Your task to perform on an android device: Turn on the flashlight Image 0: 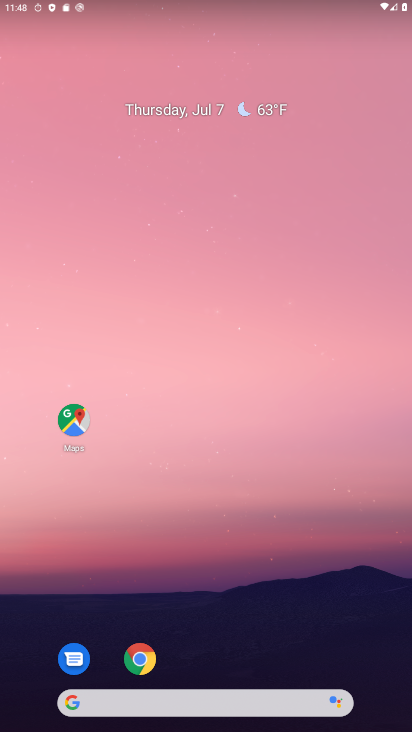
Step 0: drag from (278, 642) to (410, 80)
Your task to perform on an android device: Turn on the flashlight Image 1: 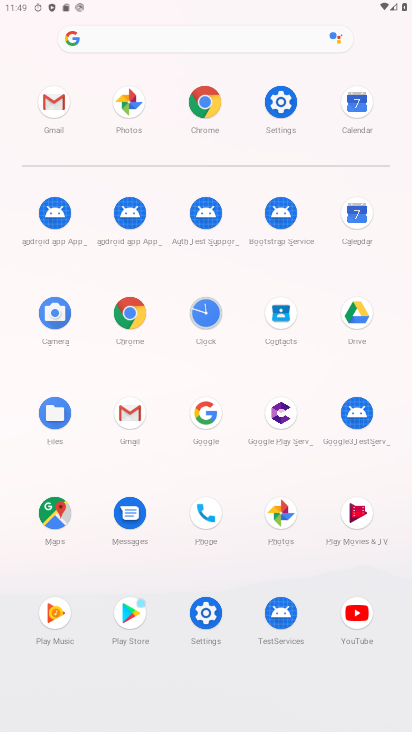
Step 1: click (207, 625)
Your task to perform on an android device: Turn on the flashlight Image 2: 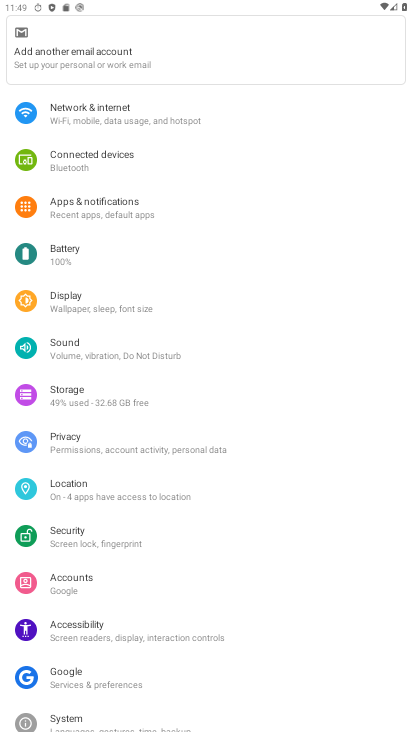
Step 2: drag from (186, 156) to (195, 520)
Your task to perform on an android device: Turn on the flashlight Image 3: 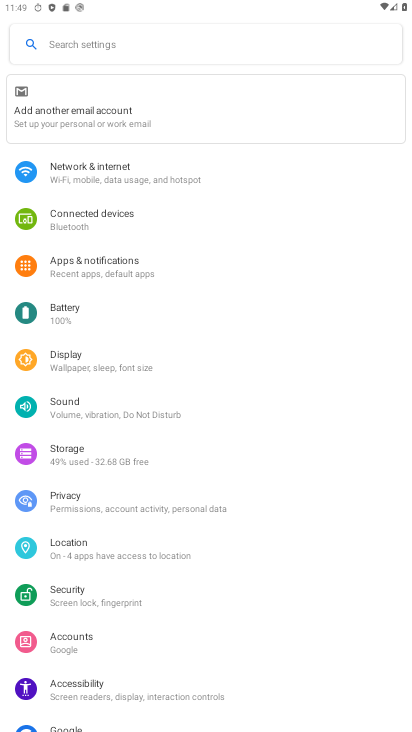
Step 3: click (187, 43)
Your task to perform on an android device: Turn on the flashlight Image 4: 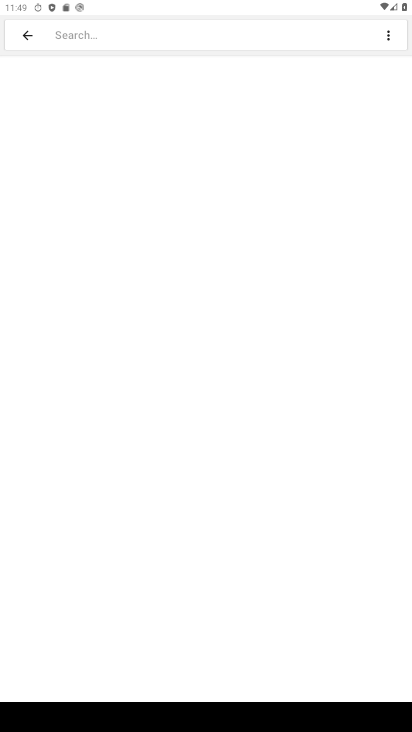
Step 4: type "flashlight"
Your task to perform on an android device: Turn on the flashlight Image 5: 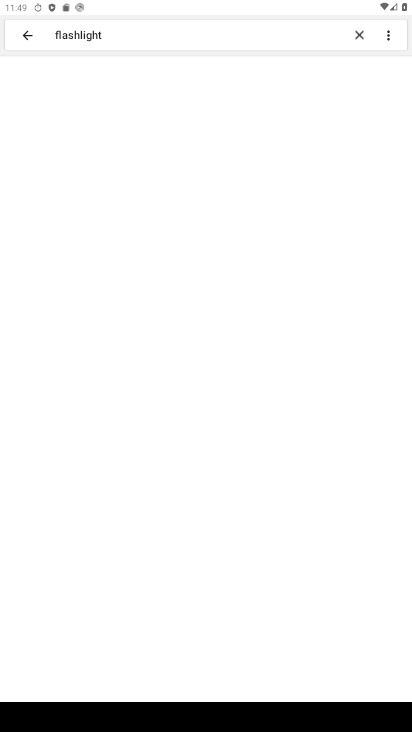
Step 5: click (124, 92)
Your task to perform on an android device: Turn on the flashlight Image 6: 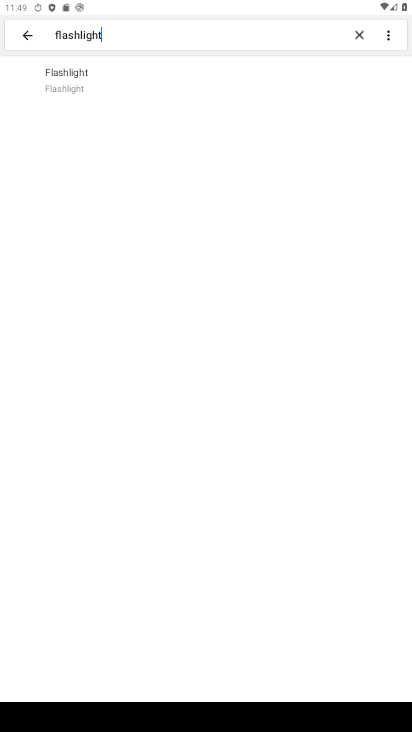
Step 6: click (79, 85)
Your task to perform on an android device: Turn on the flashlight Image 7: 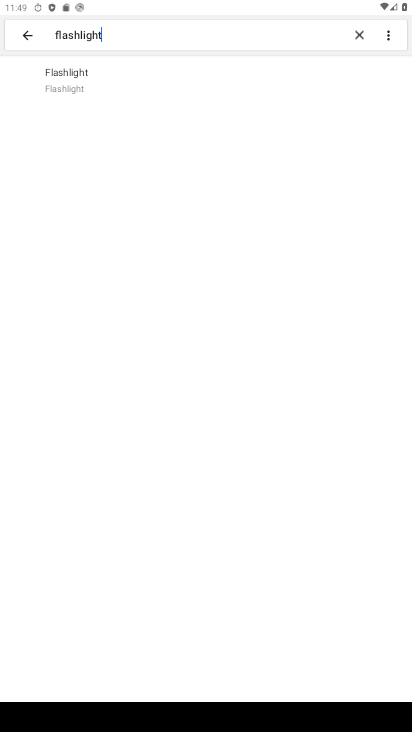
Step 7: click (78, 86)
Your task to perform on an android device: Turn on the flashlight Image 8: 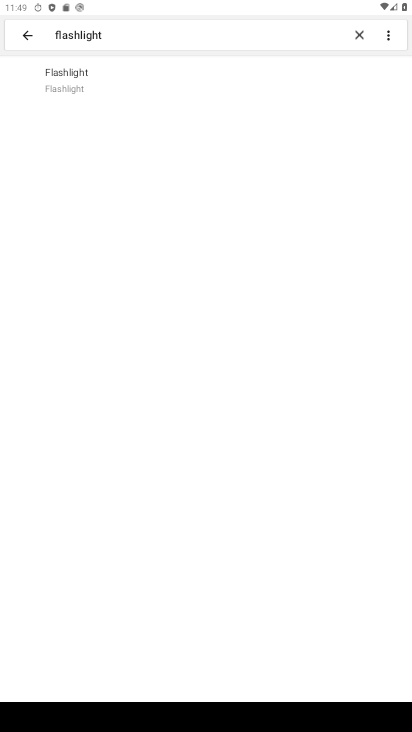
Step 8: task complete